Your task to perform on an android device: toggle translation in the chrome app Image 0: 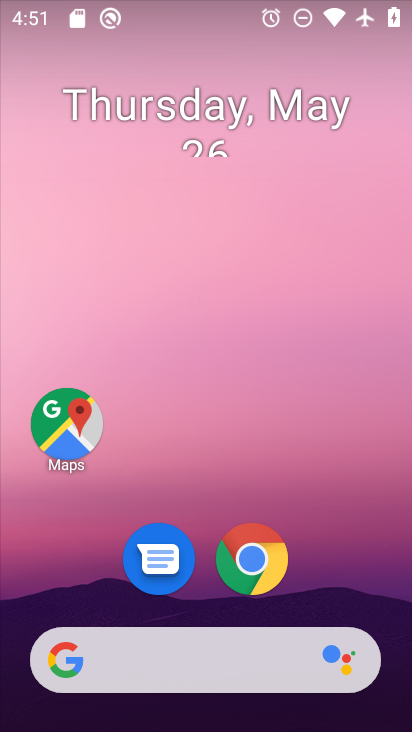
Step 0: click (268, 555)
Your task to perform on an android device: toggle translation in the chrome app Image 1: 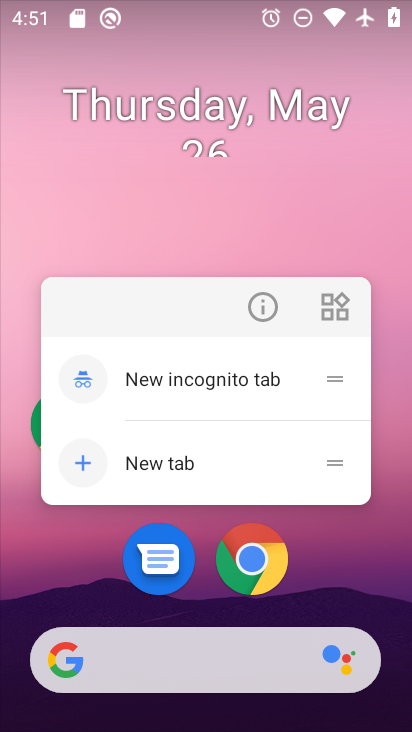
Step 1: click (257, 554)
Your task to perform on an android device: toggle translation in the chrome app Image 2: 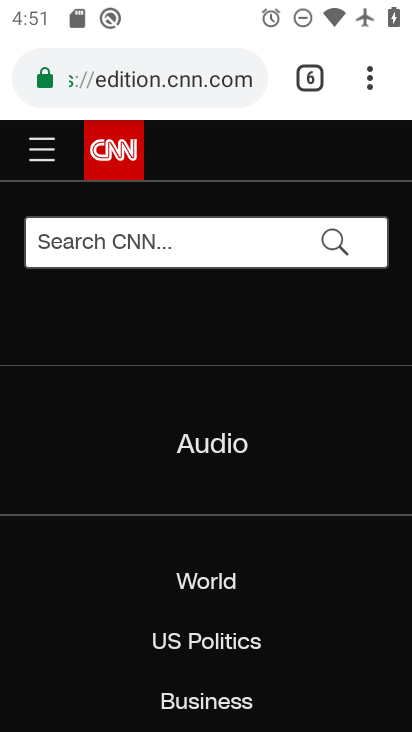
Step 2: click (368, 69)
Your task to perform on an android device: toggle translation in the chrome app Image 3: 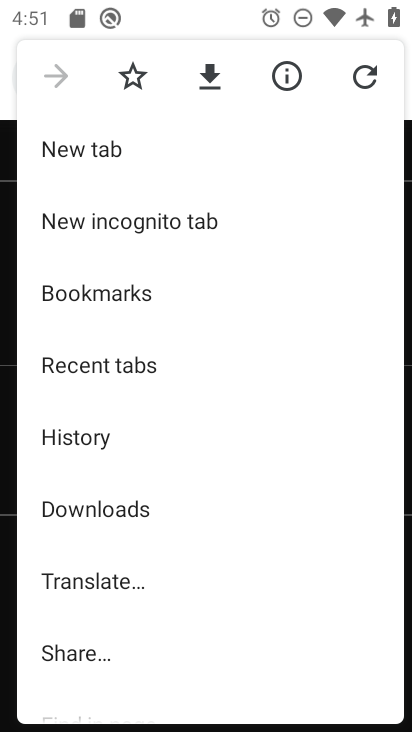
Step 3: drag from (246, 635) to (218, 152)
Your task to perform on an android device: toggle translation in the chrome app Image 4: 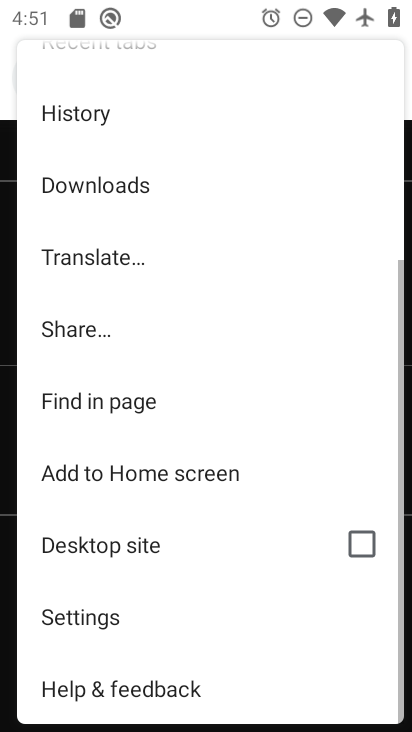
Step 4: click (181, 629)
Your task to perform on an android device: toggle translation in the chrome app Image 5: 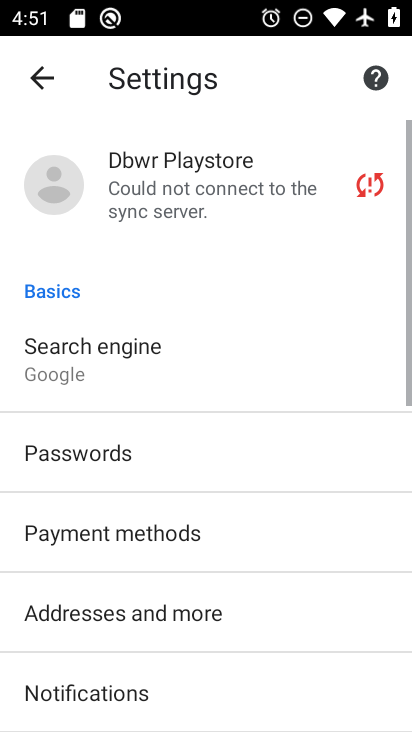
Step 5: drag from (261, 650) to (224, 241)
Your task to perform on an android device: toggle translation in the chrome app Image 6: 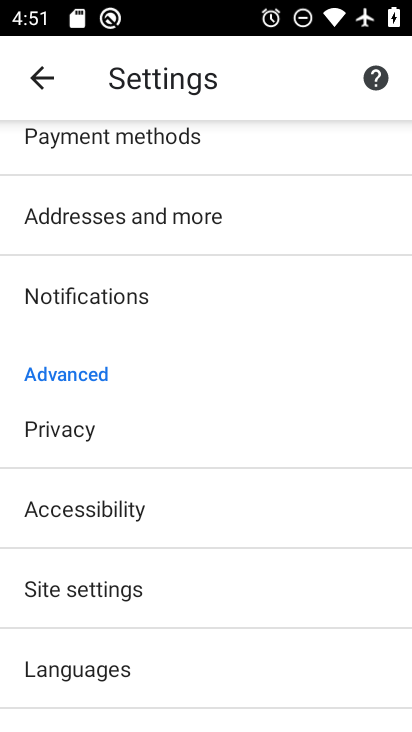
Step 6: click (183, 680)
Your task to perform on an android device: toggle translation in the chrome app Image 7: 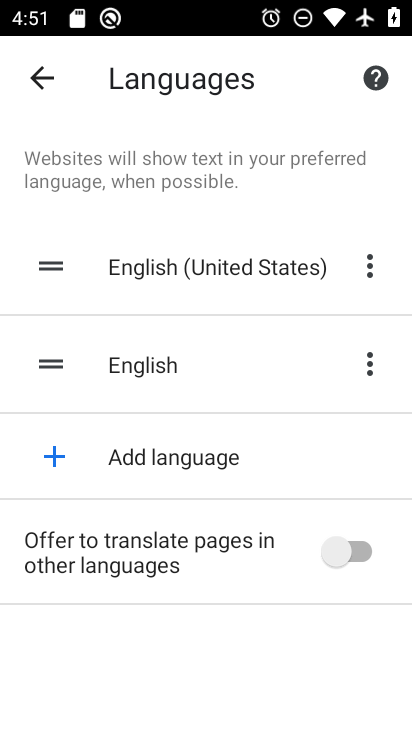
Step 7: click (338, 550)
Your task to perform on an android device: toggle translation in the chrome app Image 8: 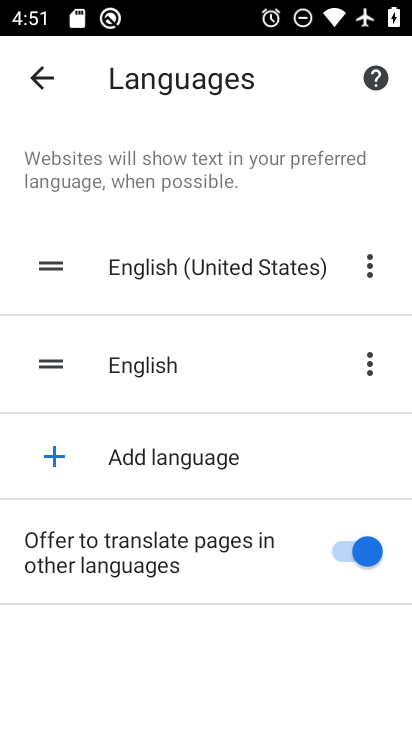
Step 8: task complete